Your task to perform on an android device: open the mobile data screen to see how much data has been used Image 0: 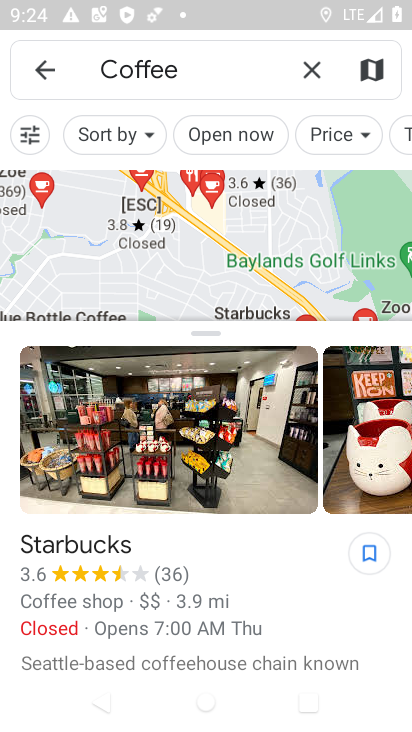
Step 0: drag from (193, 8) to (206, 707)
Your task to perform on an android device: open the mobile data screen to see how much data has been used Image 1: 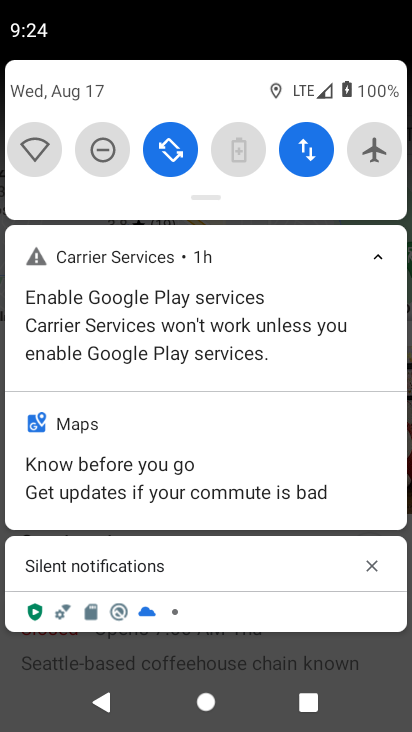
Step 1: click (310, 151)
Your task to perform on an android device: open the mobile data screen to see how much data has been used Image 2: 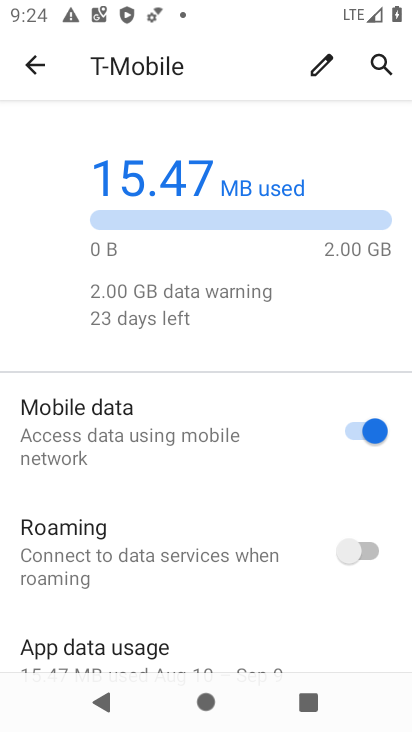
Step 2: task complete